Your task to perform on an android device: Show the shopping cart on costco. Add dell xps to the cart on costco Image 0: 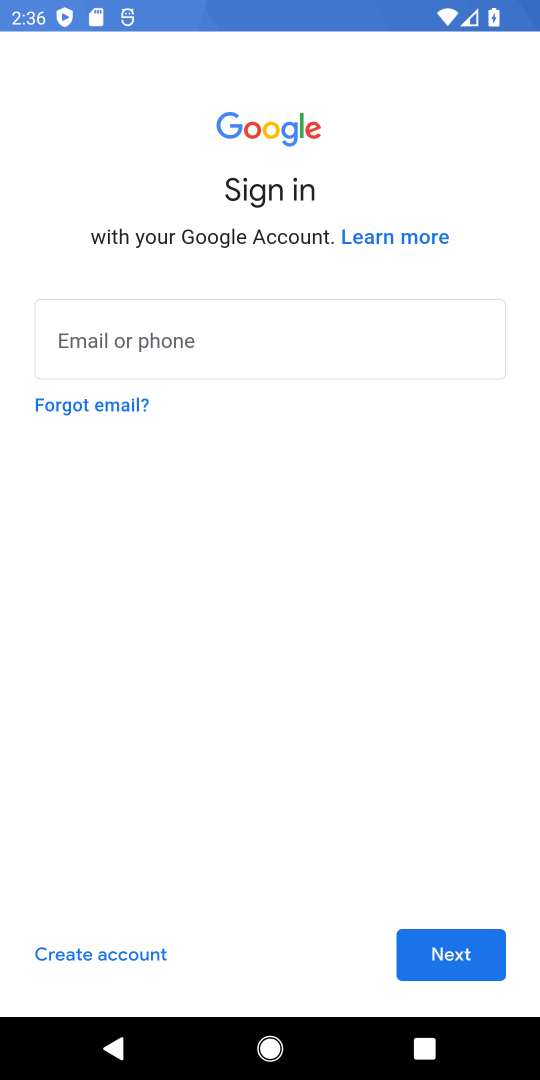
Step 0: press home button
Your task to perform on an android device: Show the shopping cart on costco. Add dell xps to the cart on costco Image 1: 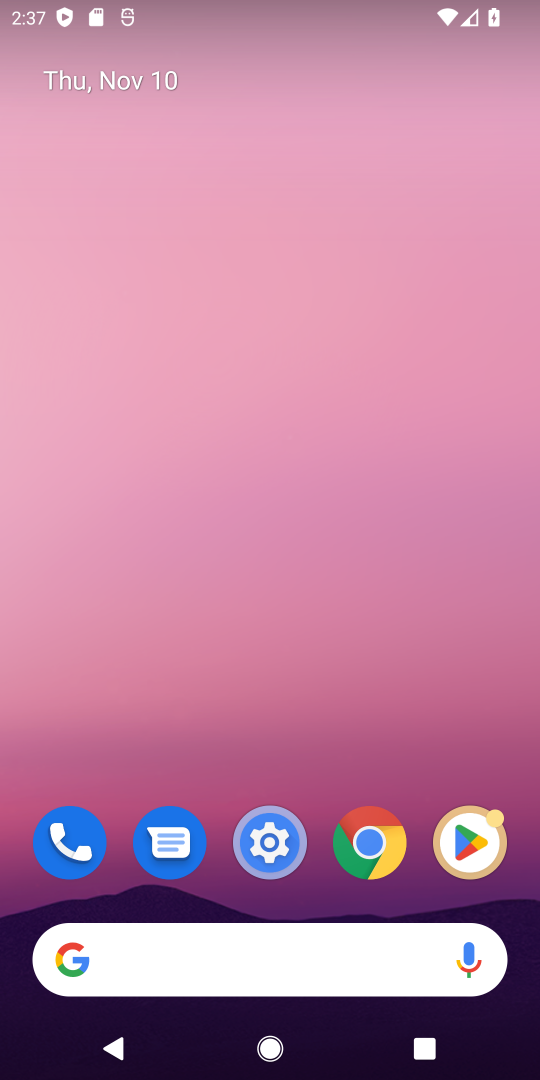
Step 1: click (106, 953)
Your task to perform on an android device: Show the shopping cart on costco. Add dell xps to the cart on costco Image 2: 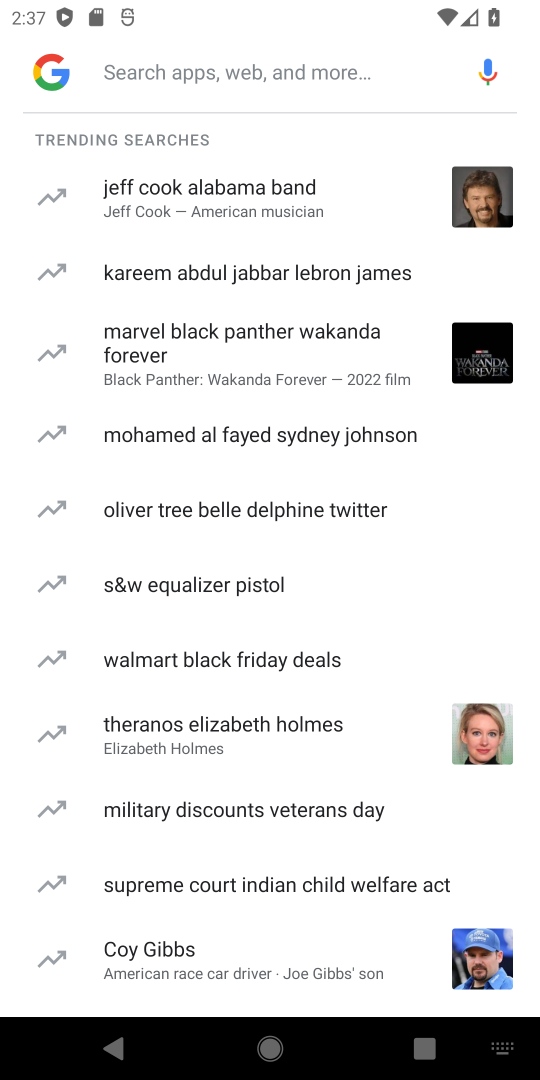
Step 2: type "costco. "
Your task to perform on an android device: Show the shopping cart on costco. Add dell xps to the cart on costco Image 3: 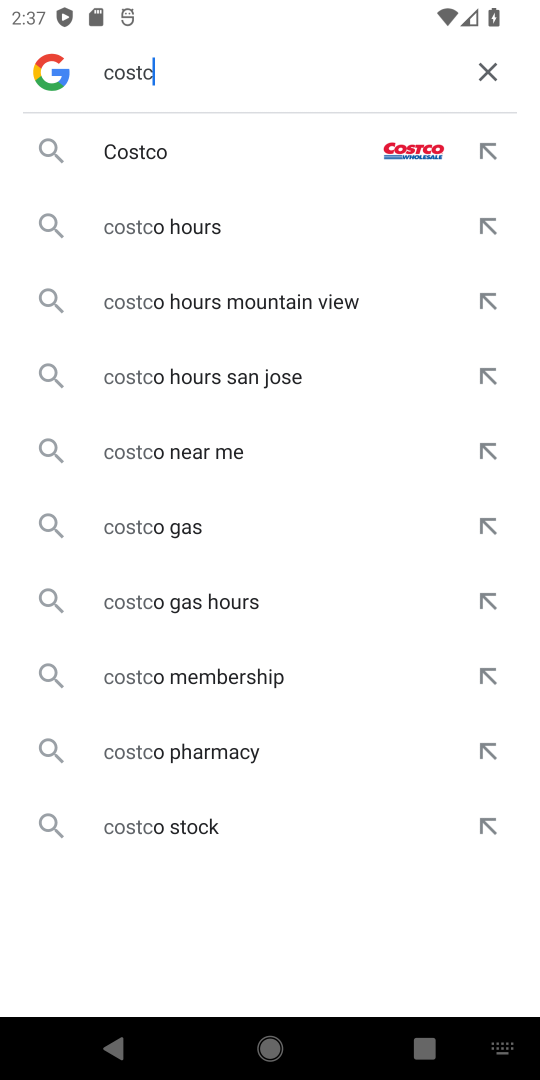
Step 3: press enter
Your task to perform on an android device: Show the shopping cart on costco. Add dell xps to the cart on costco Image 4: 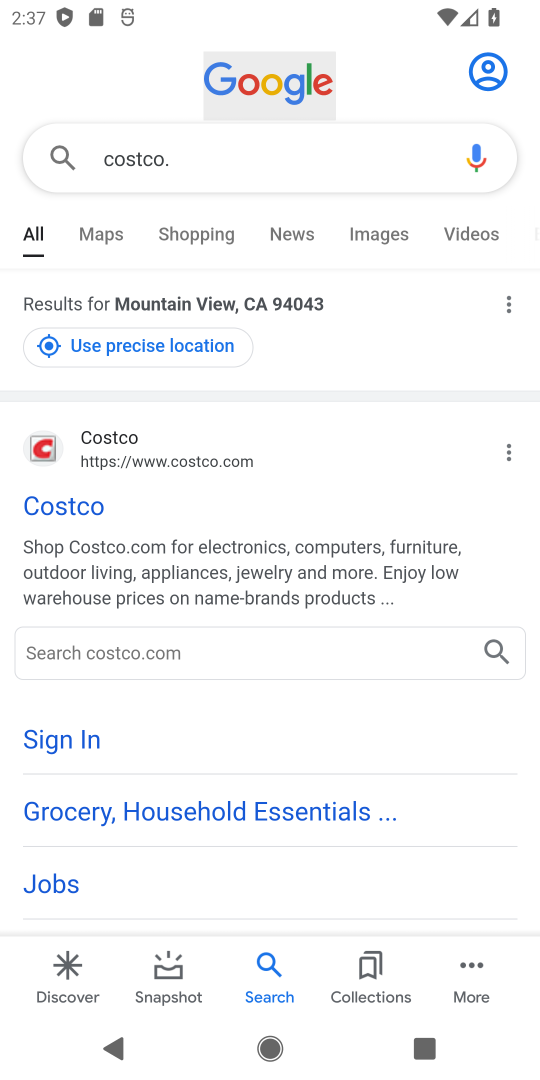
Step 4: click (68, 498)
Your task to perform on an android device: Show the shopping cart on costco. Add dell xps to the cart on costco Image 5: 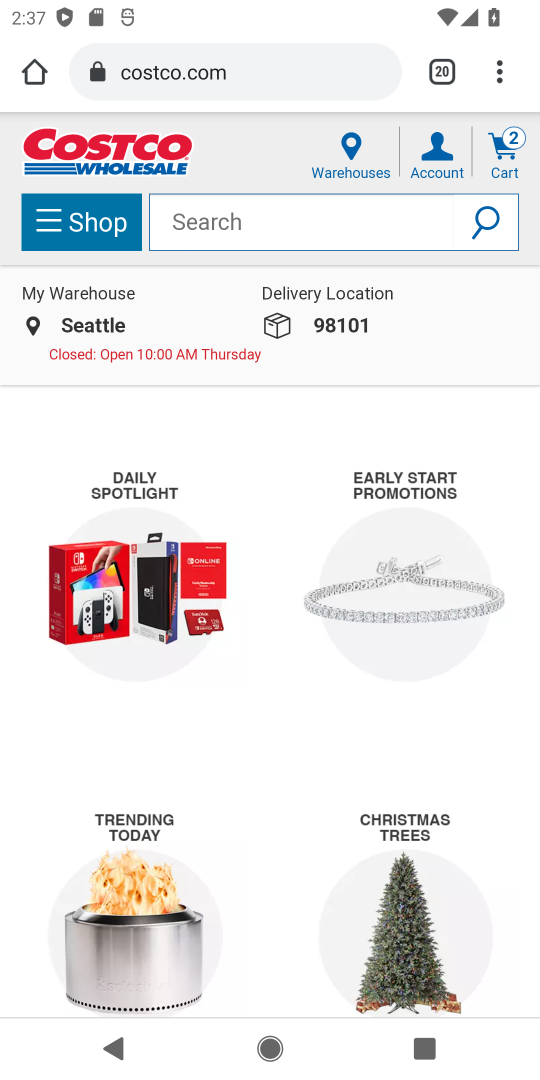
Step 5: click (513, 144)
Your task to perform on an android device: Show the shopping cart on costco. Add dell xps to the cart on costco Image 6: 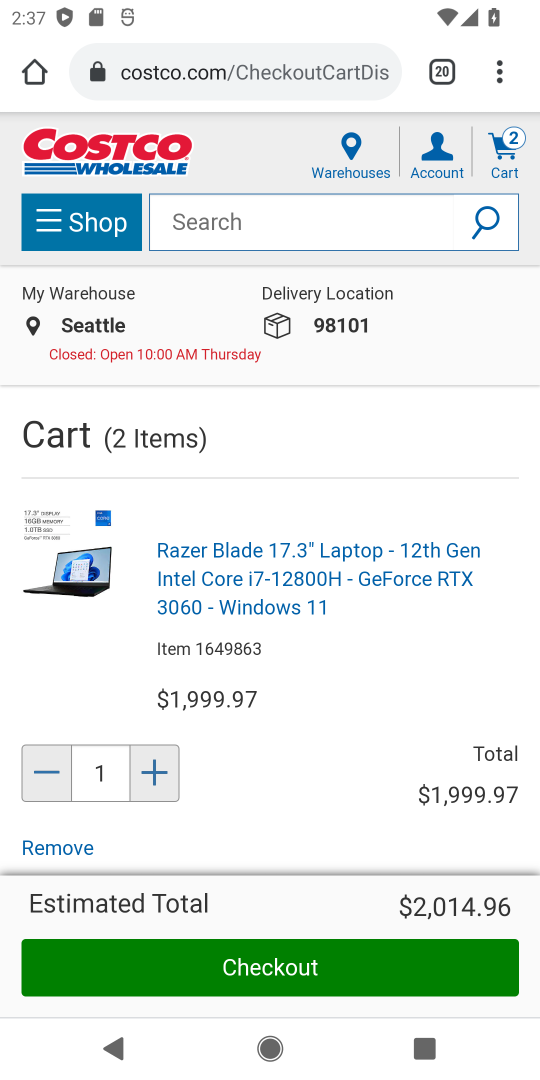
Step 6: click (211, 217)
Your task to perform on an android device: Show the shopping cart on costco. Add dell xps to the cart on costco Image 7: 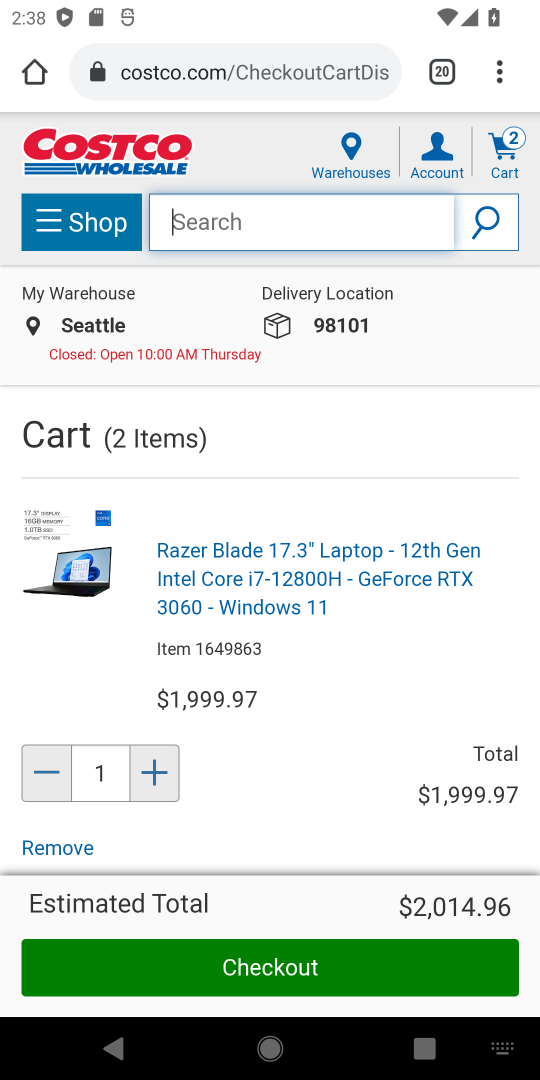
Step 7: type "dell xps"
Your task to perform on an android device: Show the shopping cart on costco. Add dell xps to the cart on costco Image 8: 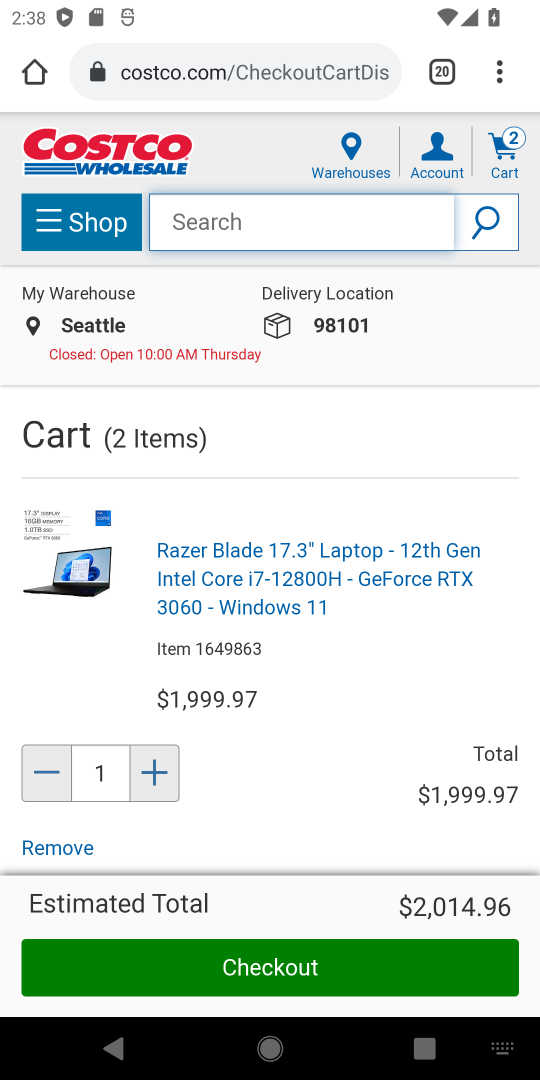
Step 8: press enter
Your task to perform on an android device: Show the shopping cart on costco. Add dell xps to the cart on costco Image 9: 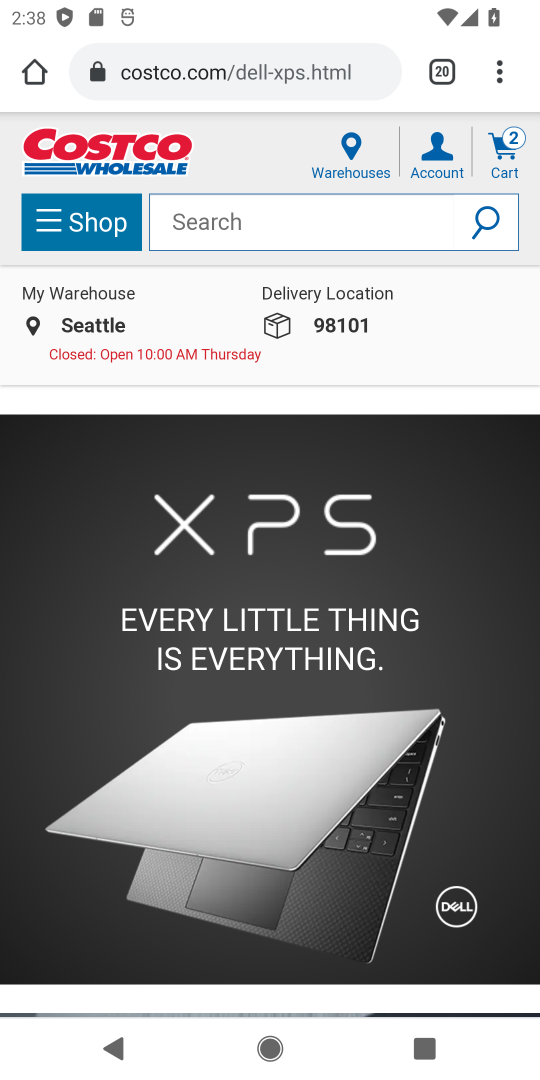
Step 9: drag from (265, 681) to (274, 338)
Your task to perform on an android device: Show the shopping cart on costco. Add dell xps to the cart on costco Image 10: 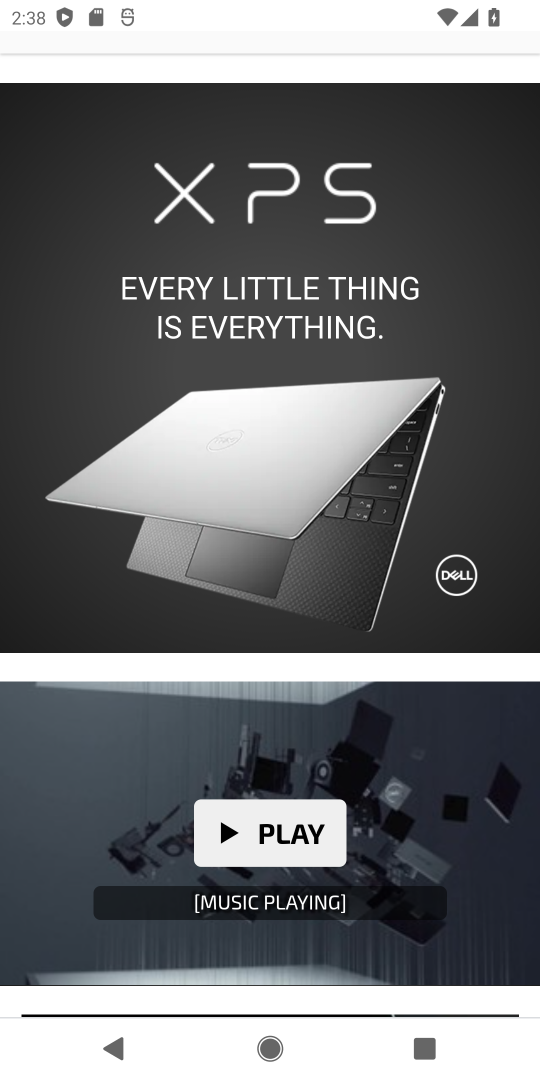
Step 10: drag from (370, 829) to (398, 334)
Your task to perform on an android device: Show the shopping cart on costco. Add dell xps to the cart on costco Image 11: 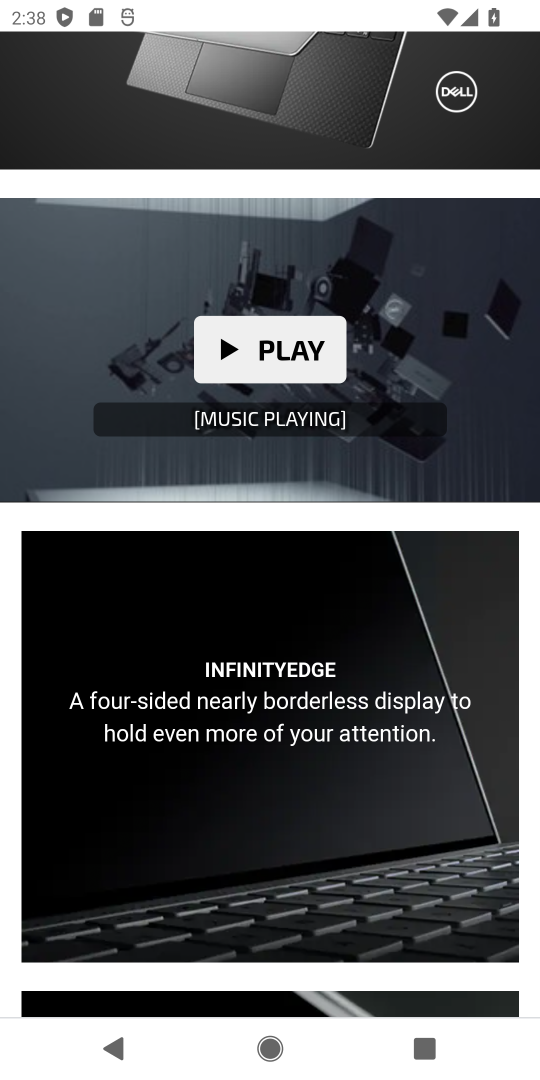
Step 11: drag from (306, 791) to (306, 285)
Your task to perform on an android device: Show the shopping cart on costco. Add dell xps to the cart on costco Image 12: 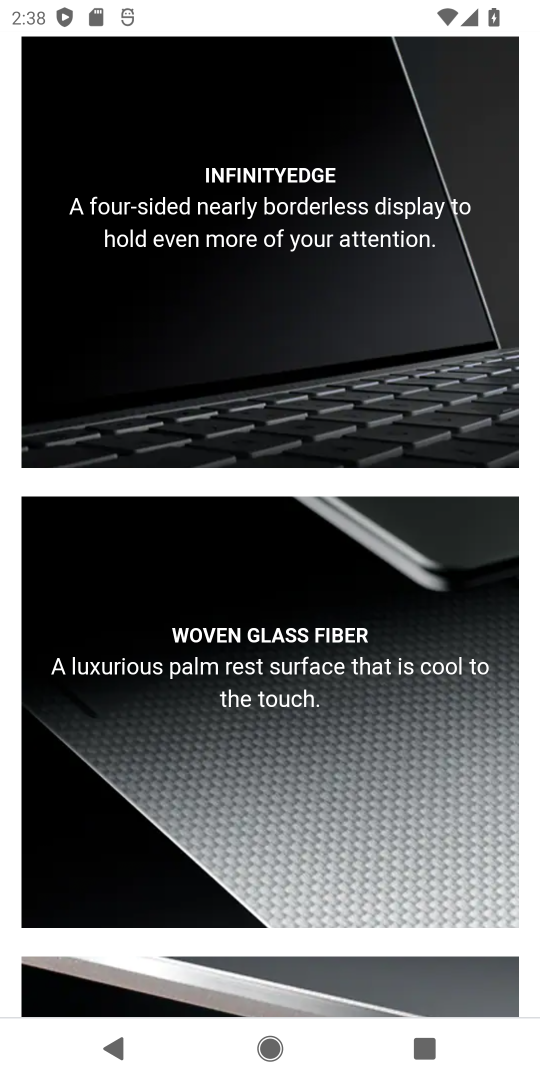
Step 12: drag from (323, 905) to (365, 294)
Your task to perform on an android device: Show the shopping cart on costco. Add dell xps to the cart on costco Image 13: 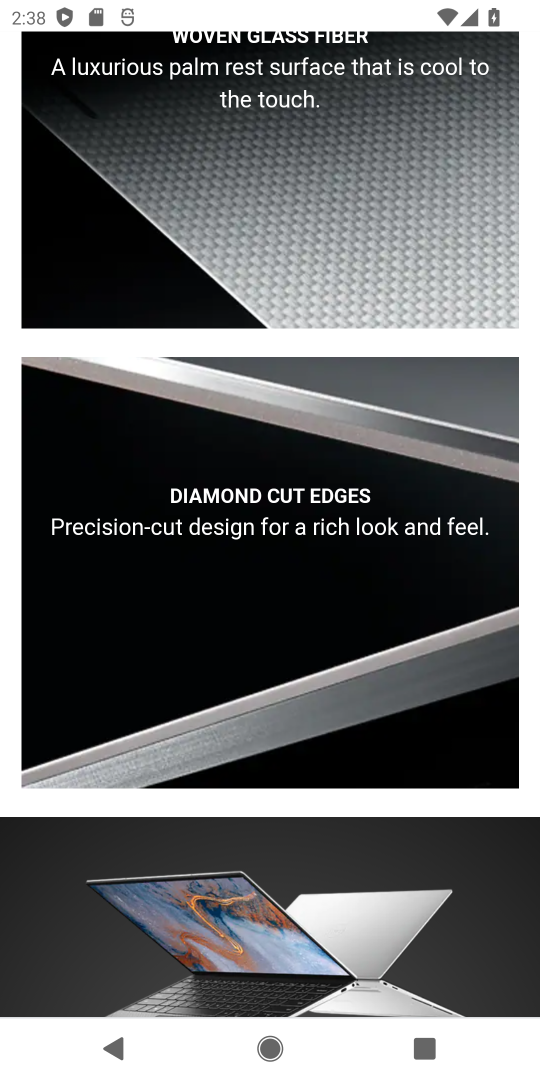
Step 13: drag from (319, 847) to (337, 418)
Your task to perform on an android device: Show the shopping cart on costco. Add dell xps to the cart on costco Image 14: 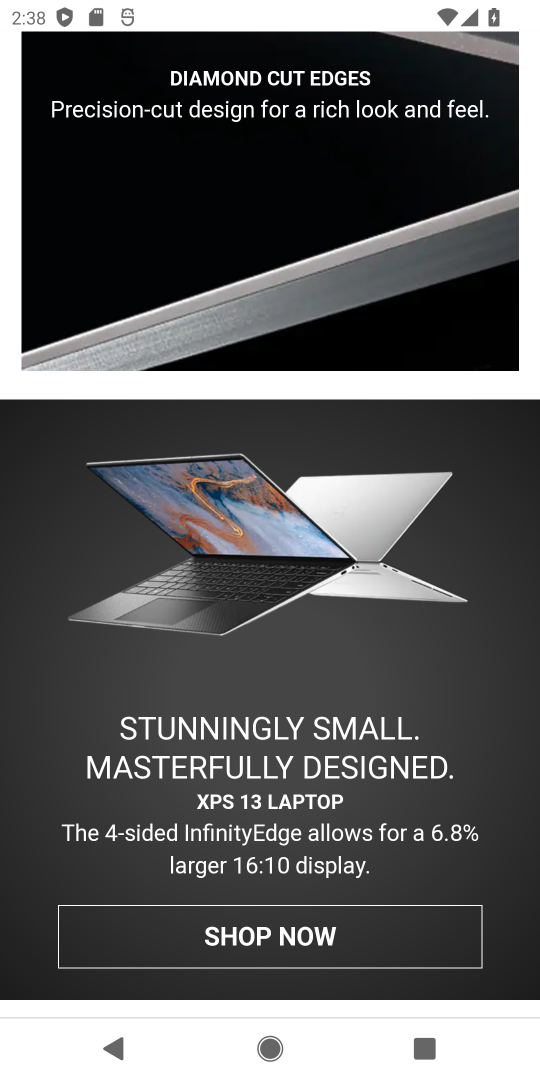
Step 14: click (282, 941)
Your task to perform on an android device: Show the shopping cart on costco. Add dell xps to the cart on costco Image 15: 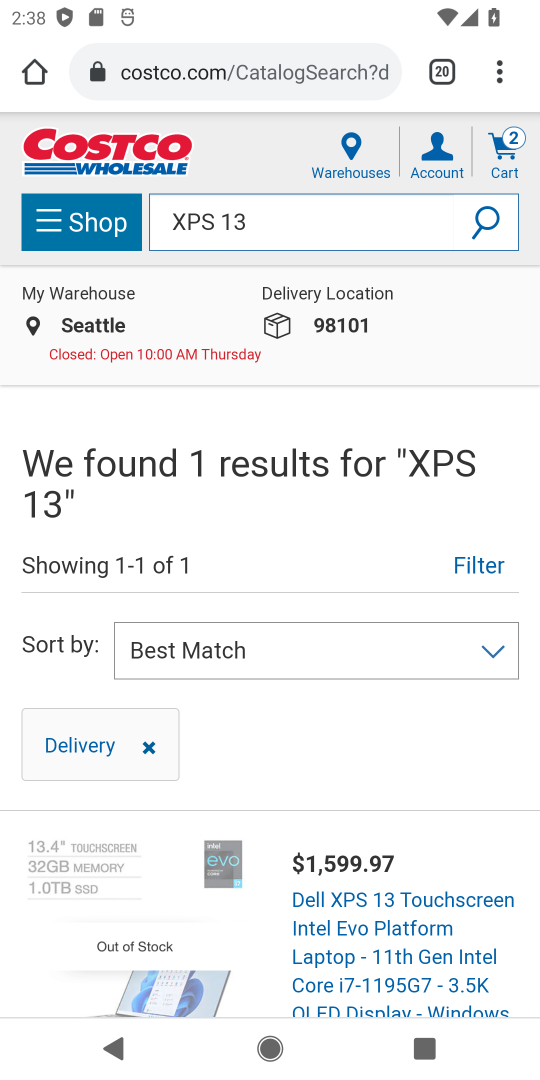
Step 15: drag from (371, 852) to (349, 448)
Your task to perform on an android device: Show the shopping cart on costco. Add dell xps to the cart on costco Image 16: 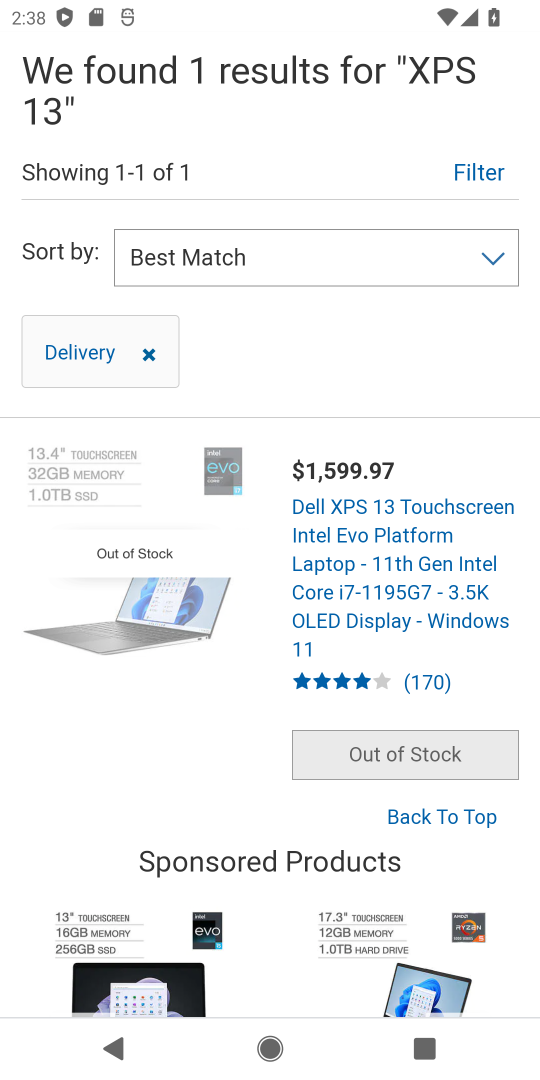
Step 16: drag from (249, 869) to (301, 322)
Your task to perform on an android device: Show the shopping cart on costco. Add dell xps to the cart on costco Image 17: 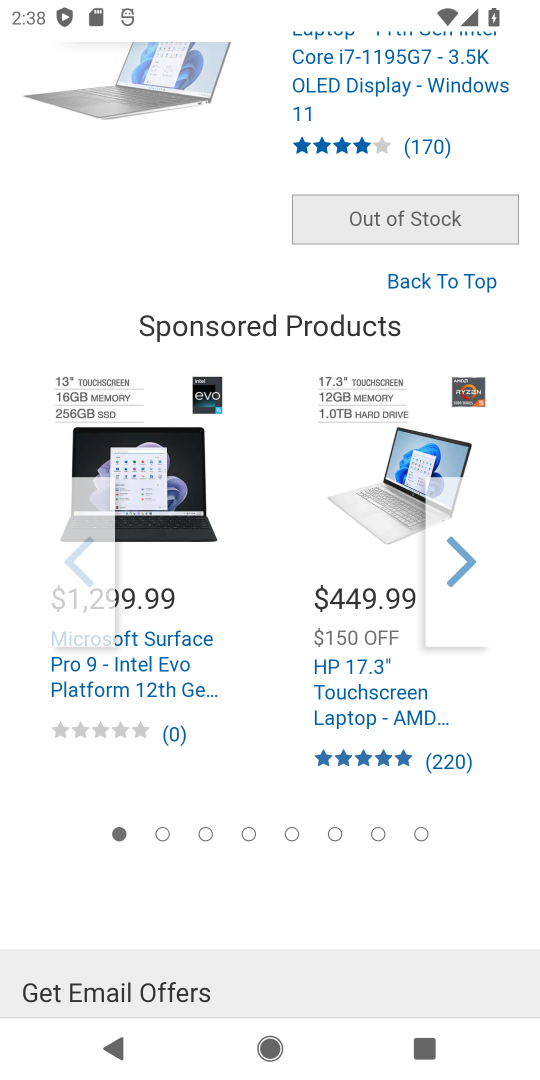
Step 17: click (458, 560)
Your task to perform on an android device: Show the shopping cart on costco. Add dell xps to the cart on costco Image 18: 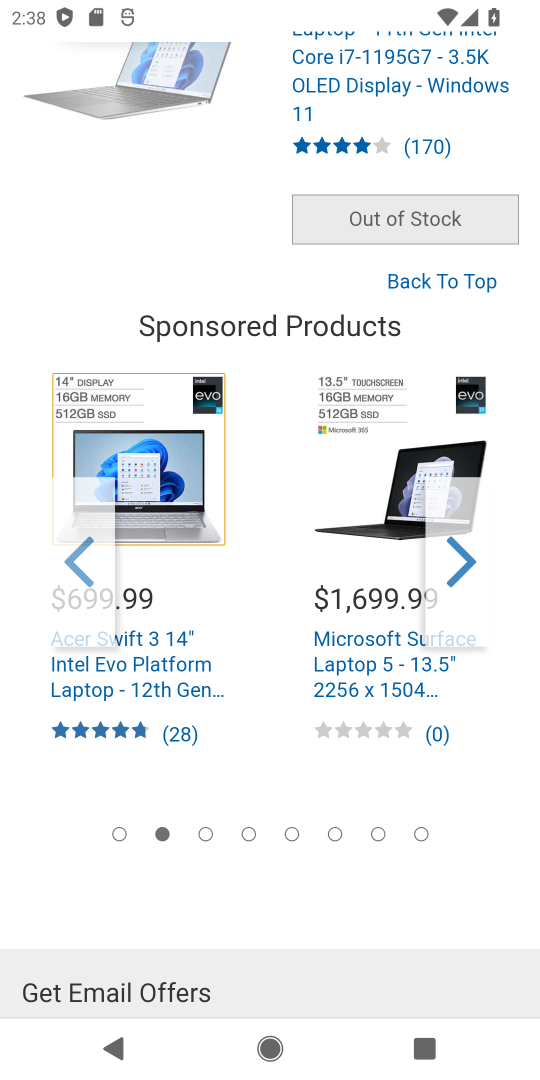
Step 18: click (458, 560)
Your task to perform on an android device: Show the shopping cart on costco. Add dell xps to the cart on costco Image 19: 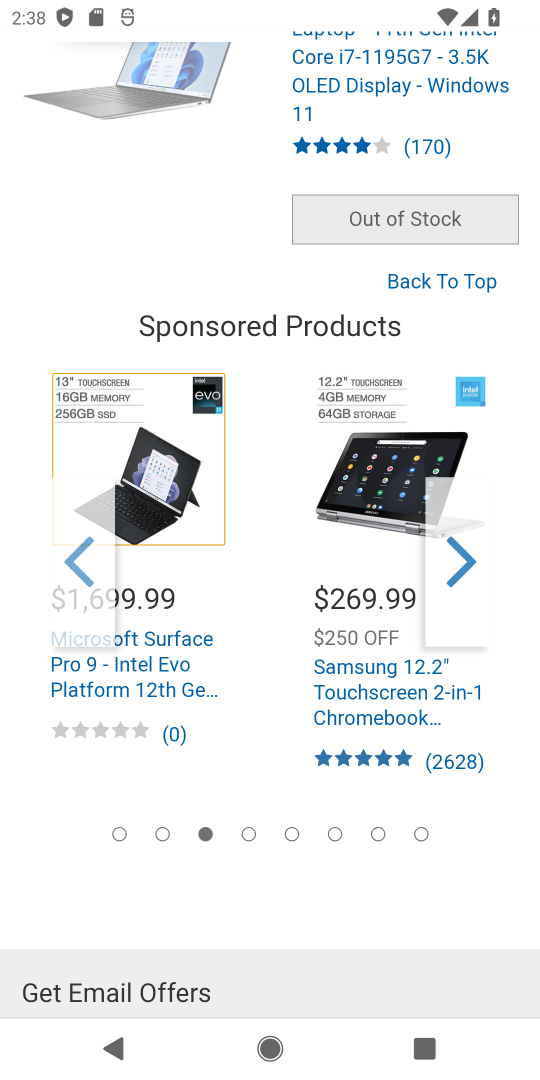
Step 19: click (458, 560)
Your task to perform on an android device: Show the shopping cart on costco. Add dell xps to the cart on costco Image 20: 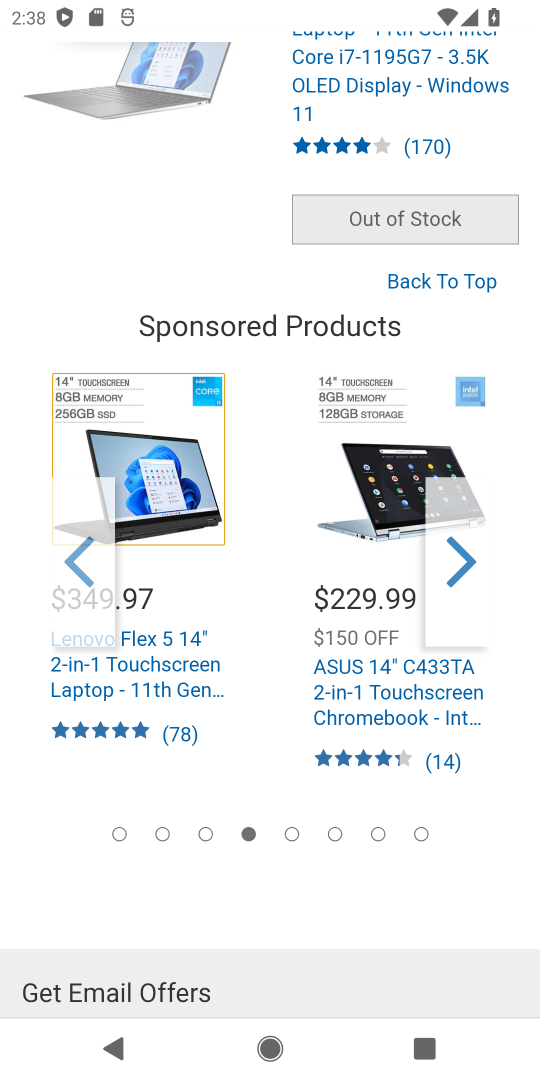
Step 20: click (458, 560)
Your task to perform on an android device: Show the shopping cart on costco. Add dell xps to the cart on costco Image 21: 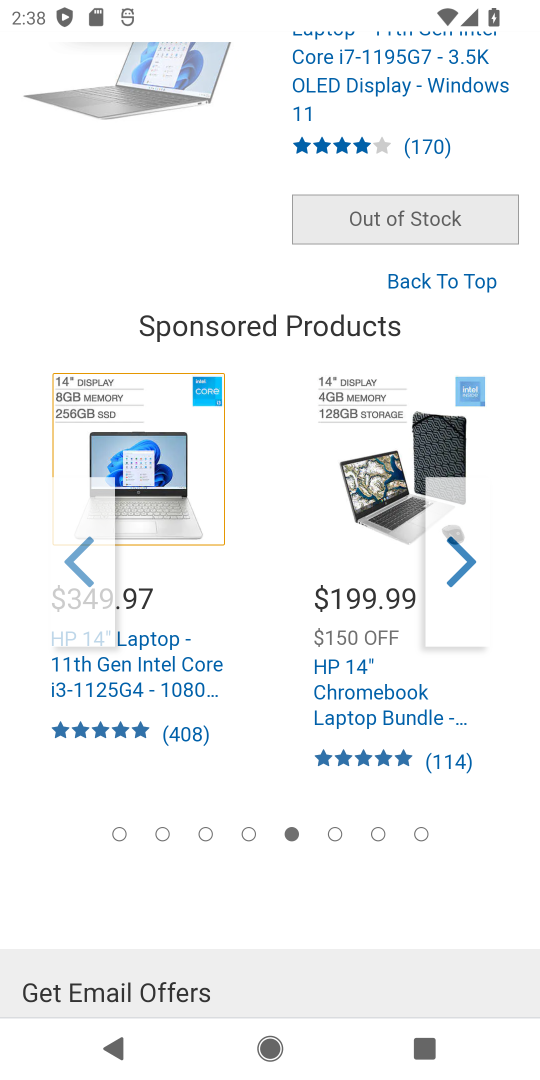
Step 21: click (458, 560)
Your task to perform on an android device: Show the shopping cart on costco. Add dell xps to the cart on costco Image 22: 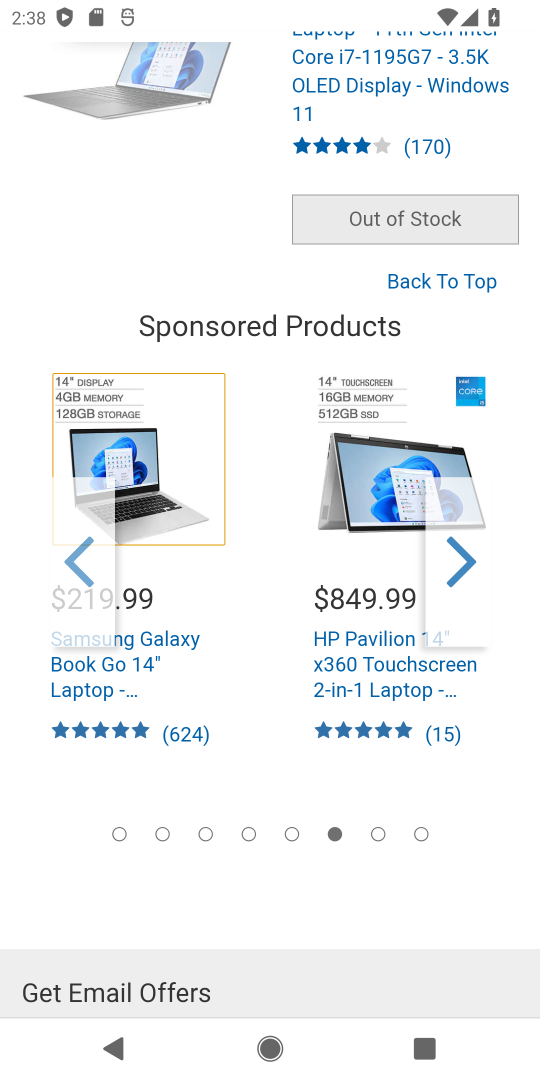
Step 22: click (458, 560)
Your task to perform on an android device: Show the shopping cart on costco. Add dell xps to the cart on costco Image 23: 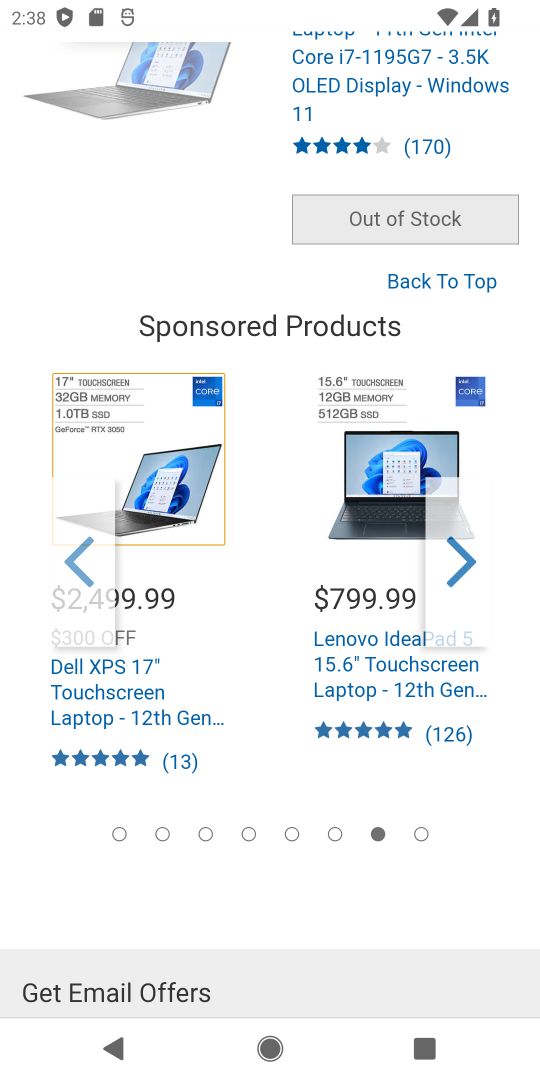
Step 23: click (458, 560)
Your task to perform on an android device: Show the shopping cart on costco. Add dell xps to the cart on costco Image 24: 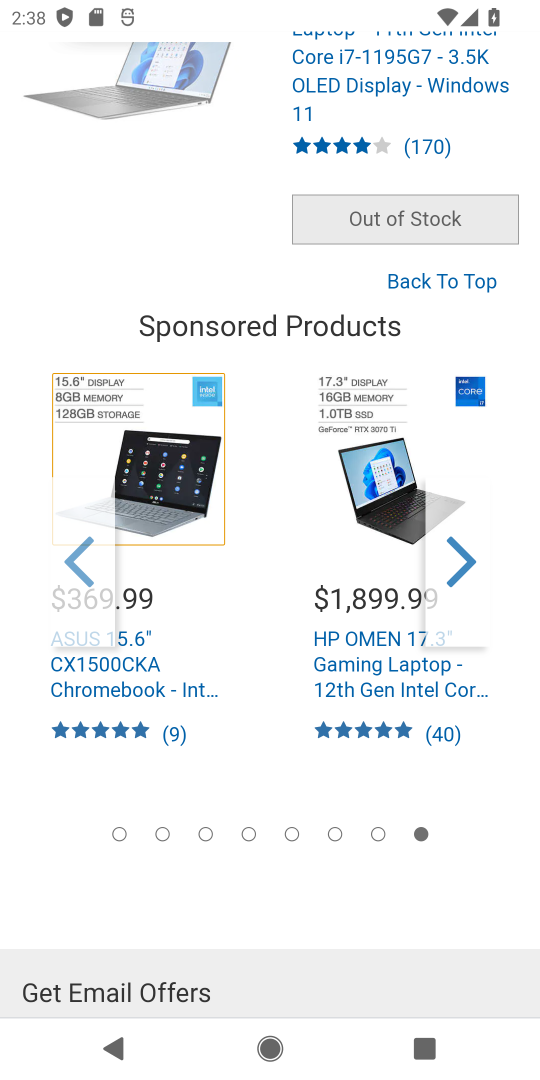
Step 24: click (458, 560)
Your task to perform on an android device: Show the shopping cart on costco. Add dell xps to the cart on costco Image 25: 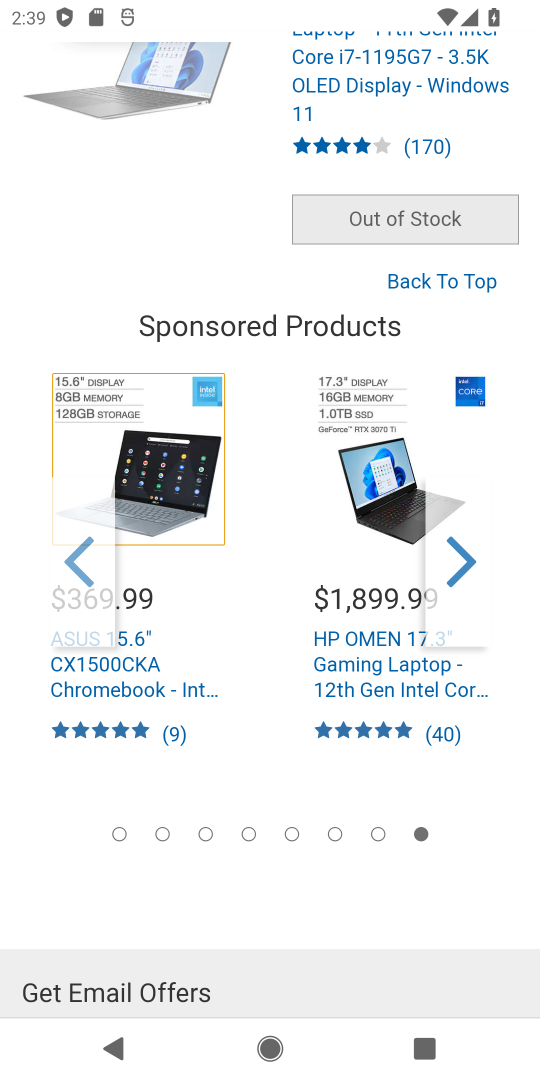
Step 25: task complete